Your task to perform on an android device: open app "Facebook Messenger" (install if not already installed), go to login, and select forgot password Image 0: 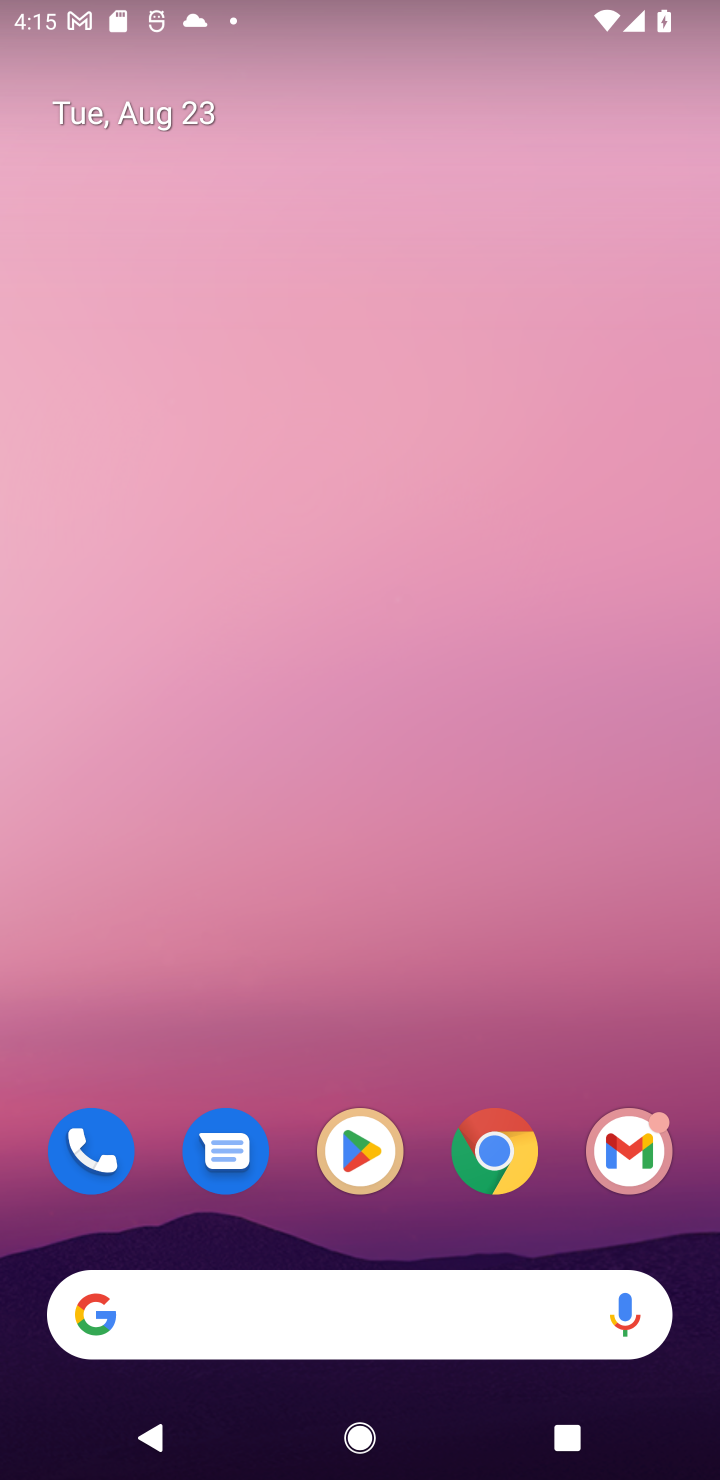
Step 0: press home button
Your task to perform on an android device: open app "Facebook Messenger" (install if not already installed), go to login, and select forgot password Image 1: 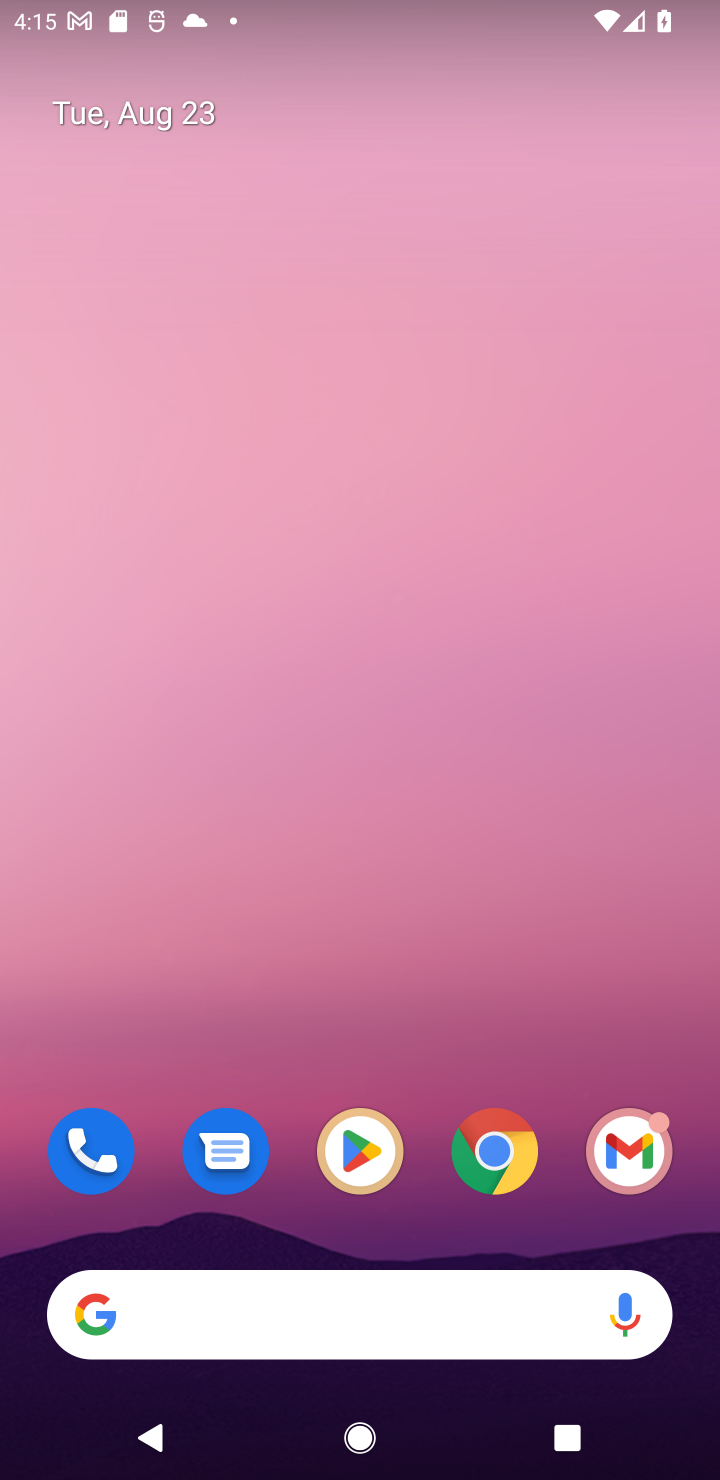
Step 1: click (351, 1156)
Your task to perform on an android device: open app "Facebook Messenger" (install if not already installed), go to login, and select forgot password Image 2: 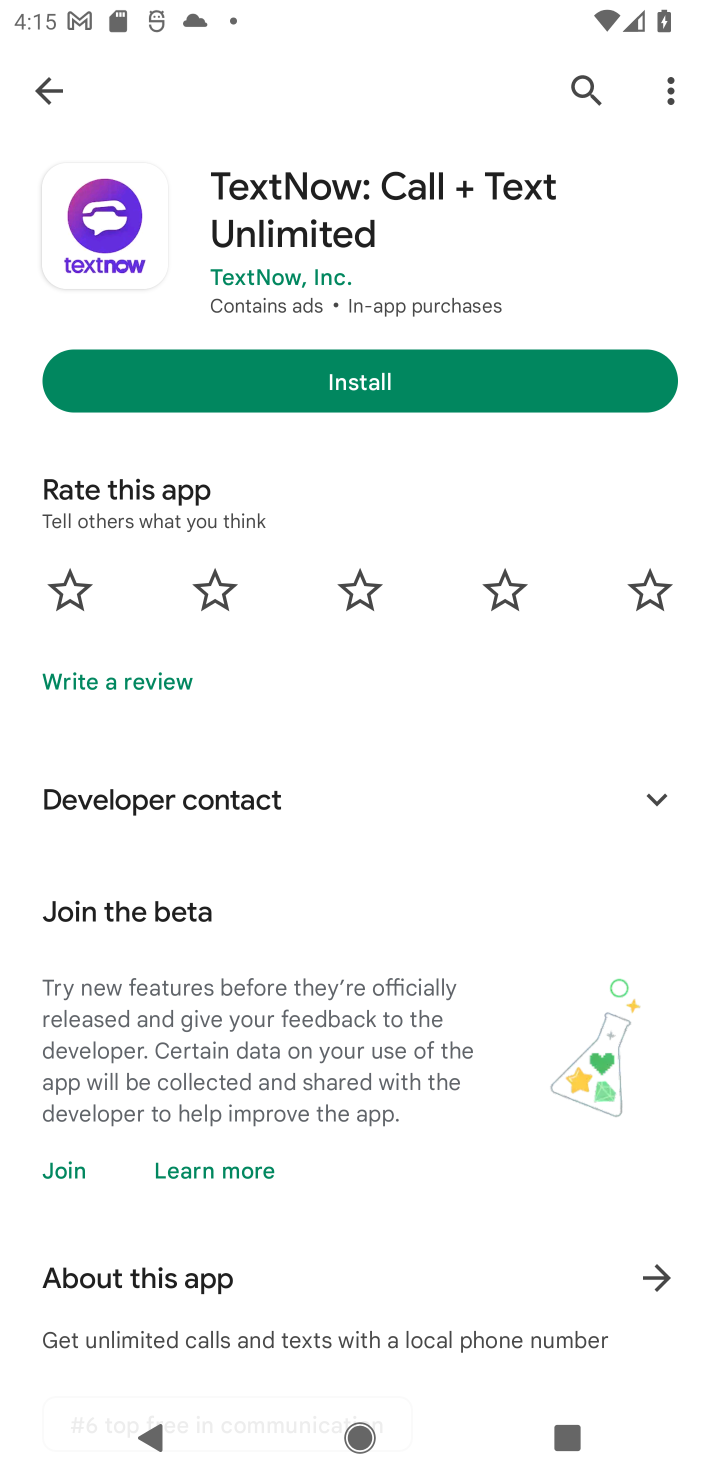
Step 2: click (578, 83)
Your task to perform on an android device: open app "Facebook Messenger" (install if not already installed), go to login, and select forgot password Image 3: 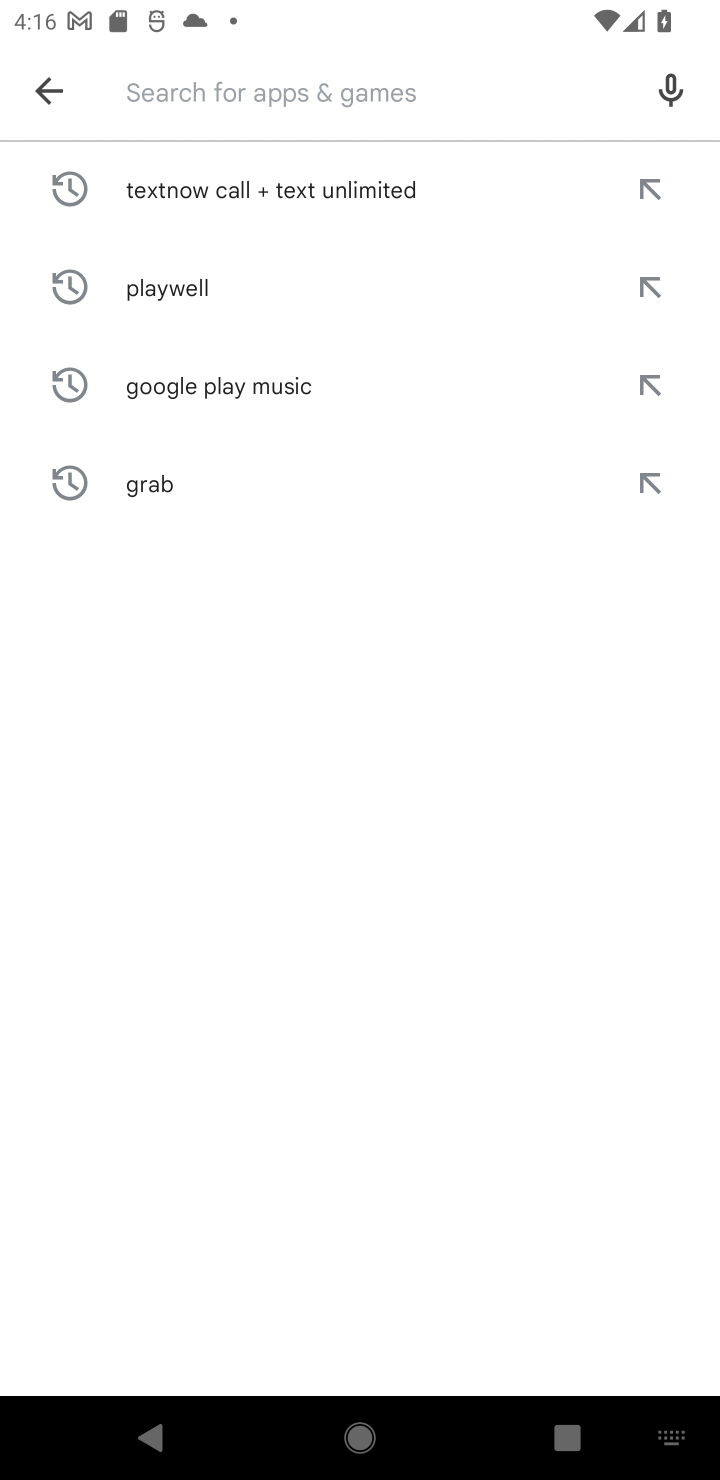
Step 3: type "Facebook Messenger"
Your task to perform on an android device: open app "Facebook Messenger" (install if not already installed), go to login, and select forgot password Image 4: 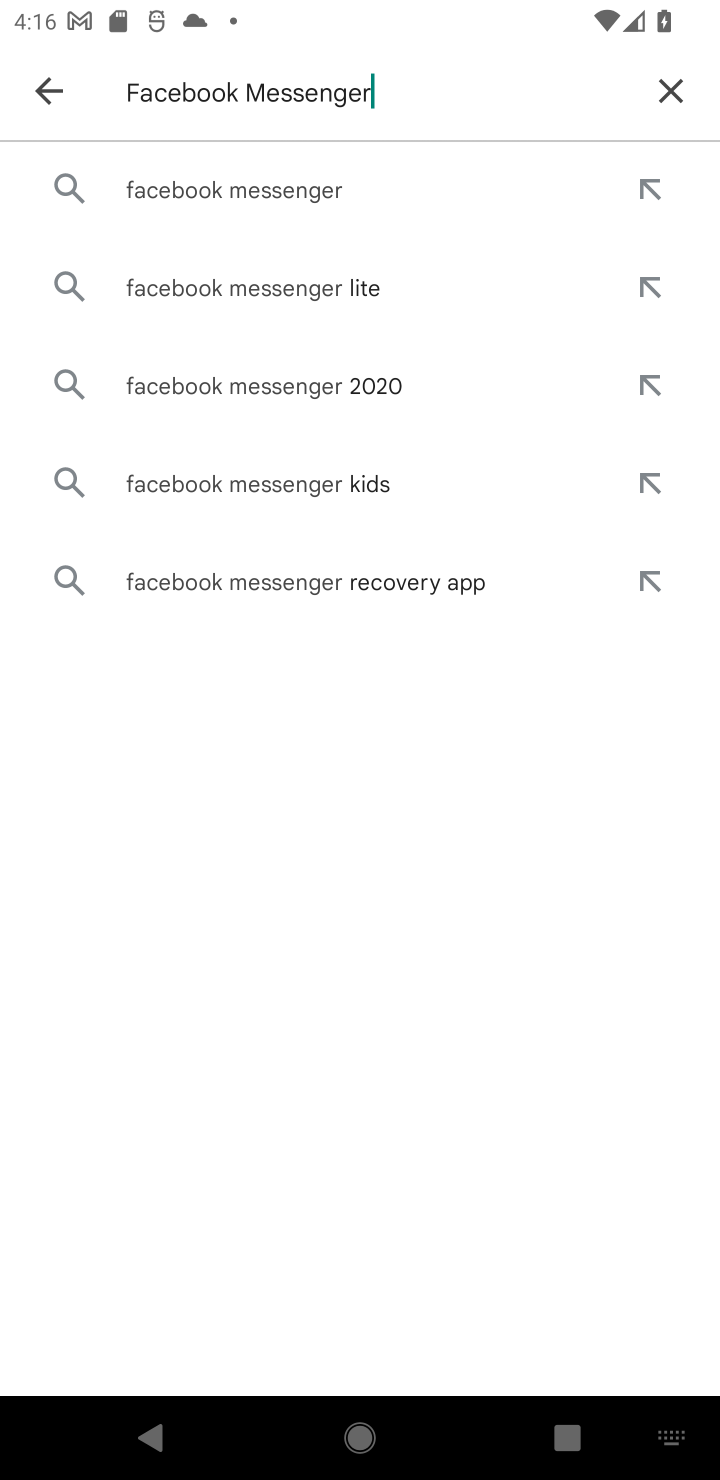
Step 4: click (261, 184)
Your task to perform on an android device: open app "Facebook Messenger" (install if not already installed), go to login, and select forgot password Image 5: 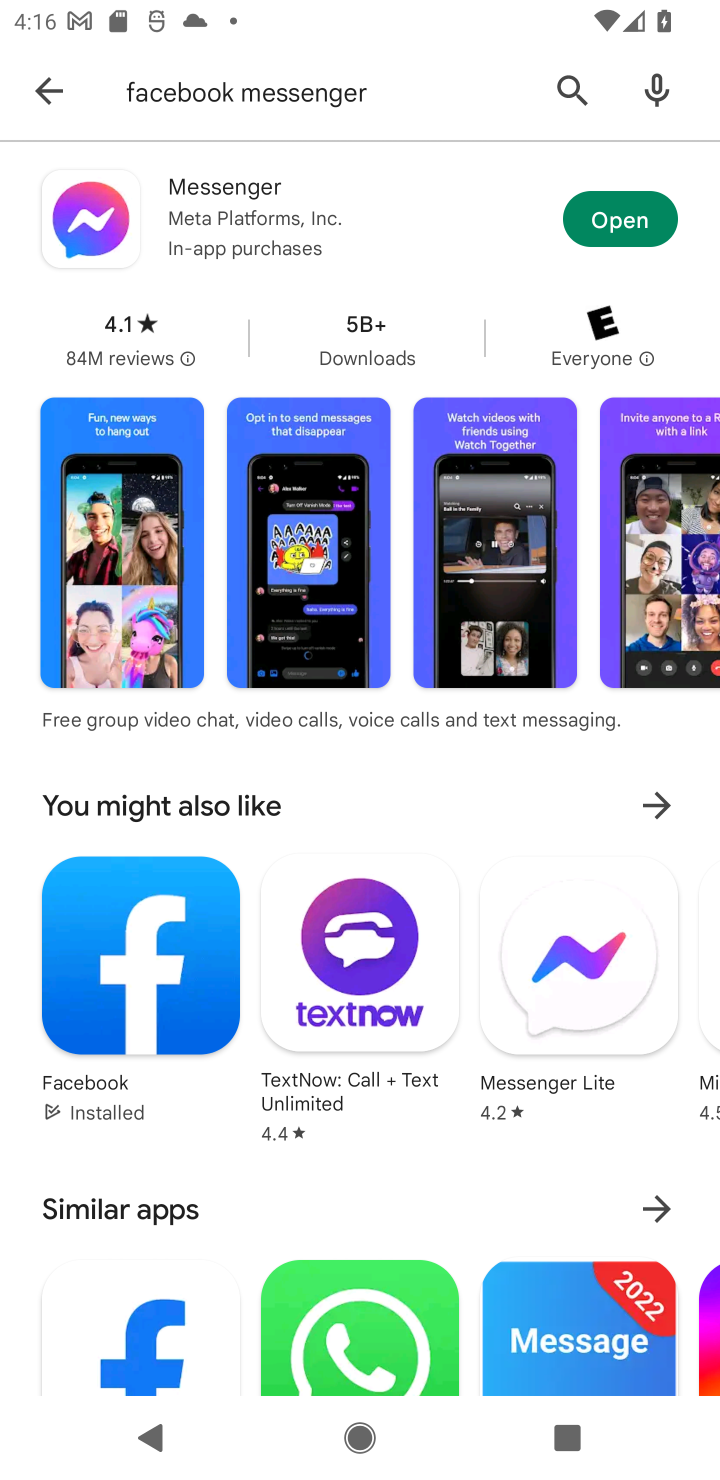
Step 5: click (636, 222)
Your task to perform on an android device: open app "Facebook Messenger" (install if not already installed), go to login, and select forgot password Image 6: 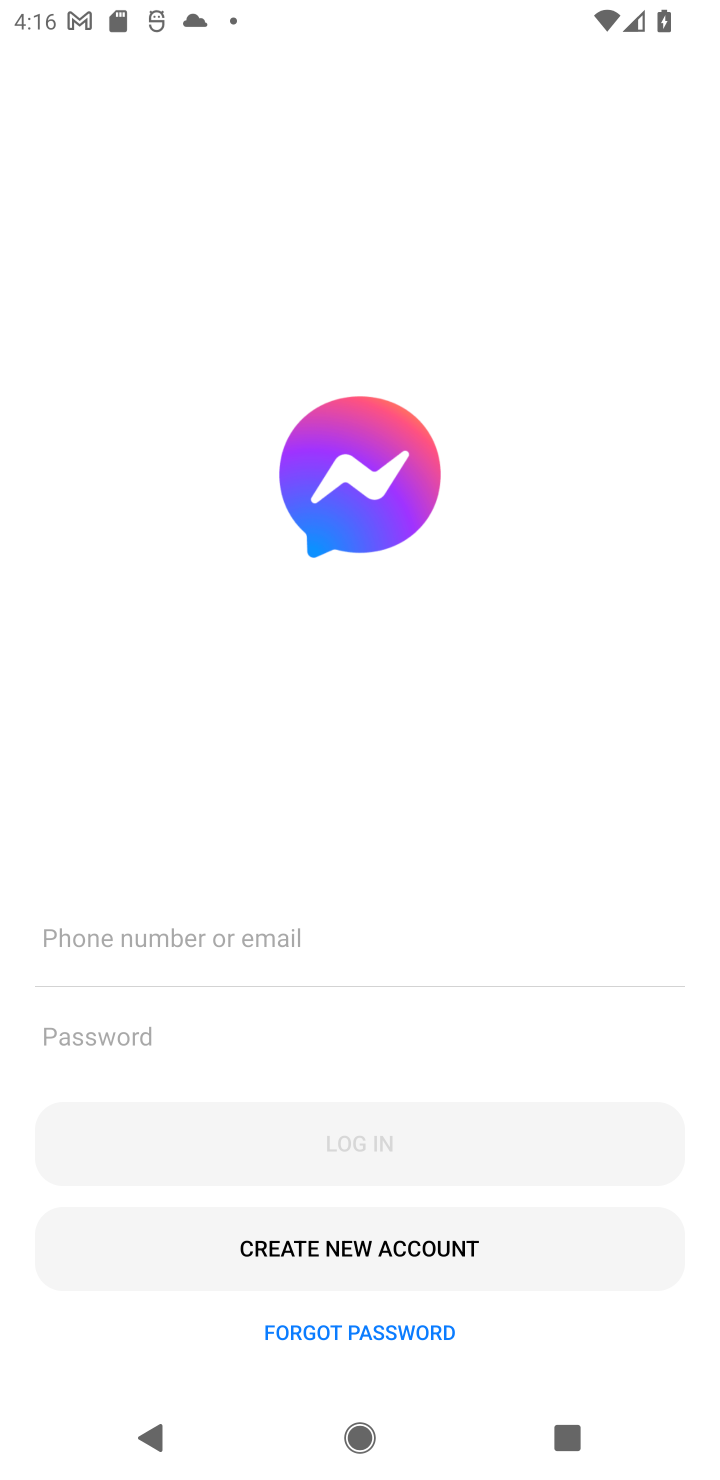
Step 6: click (384, 1336)
Your task to perform on an android device: open app "Facebook Messenger" (install if not already installed), go to login, and select forgot password Image 7: 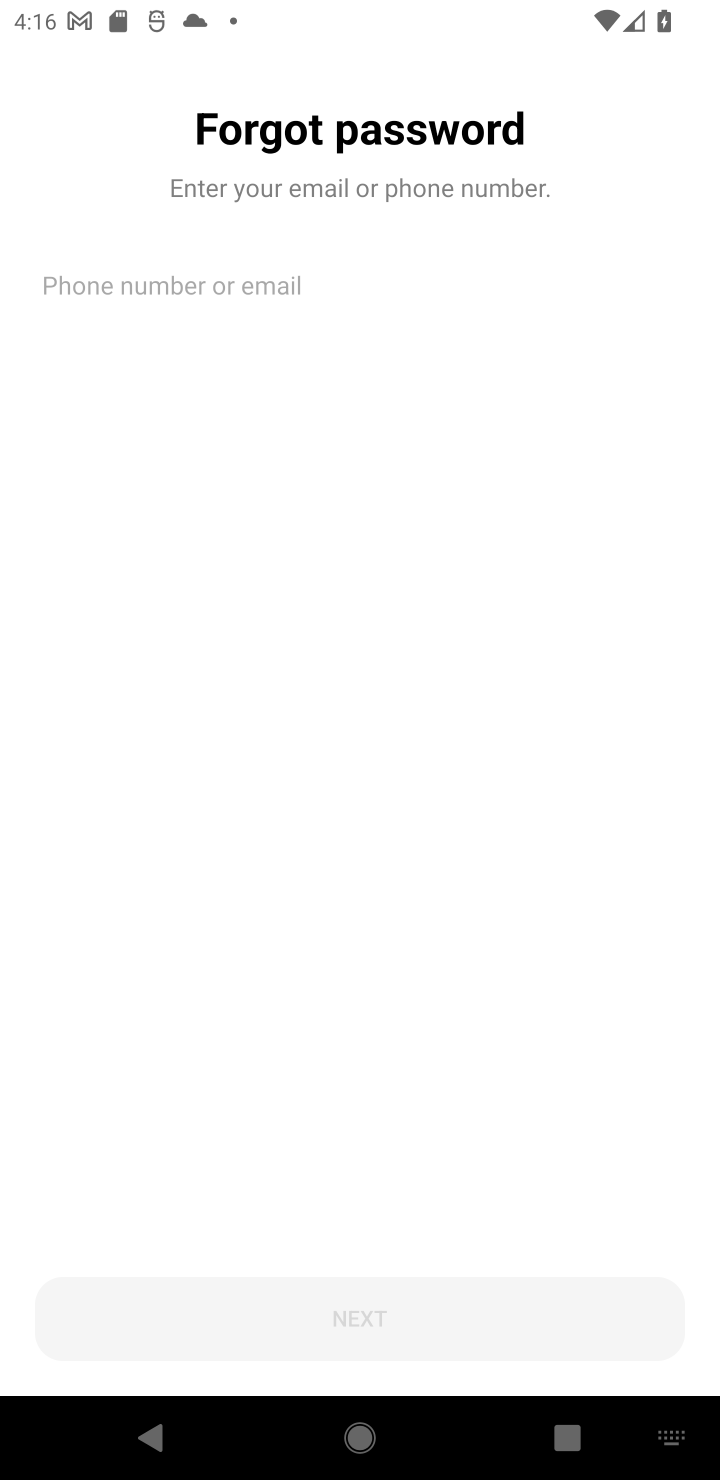
Step 7: task complete